Your task to perform on an android device: toggle translation in the chrome app Image 0: 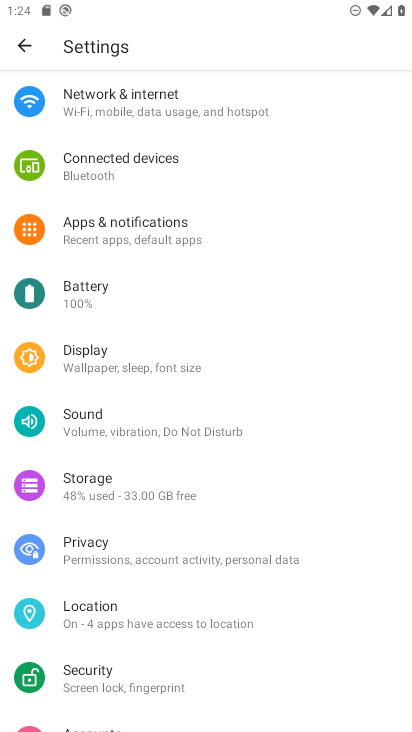
Step 0: press home button
Your task to perform on an android device: toggle translation in the chrome app Image 1: 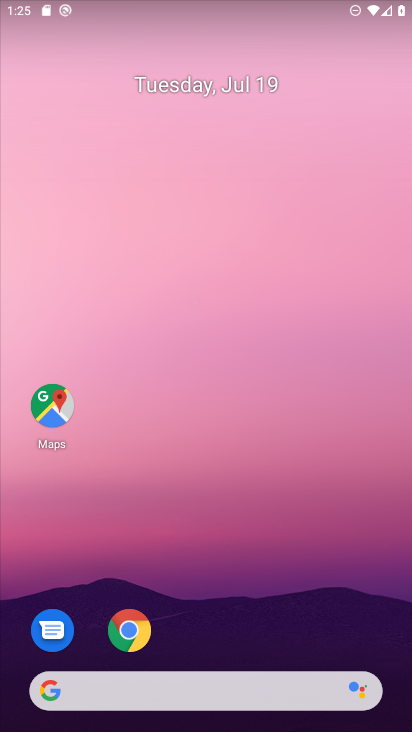
Step 1: click (125, 635)
Your task to perform on an android device: toggle translation in the chrome app Image 2: 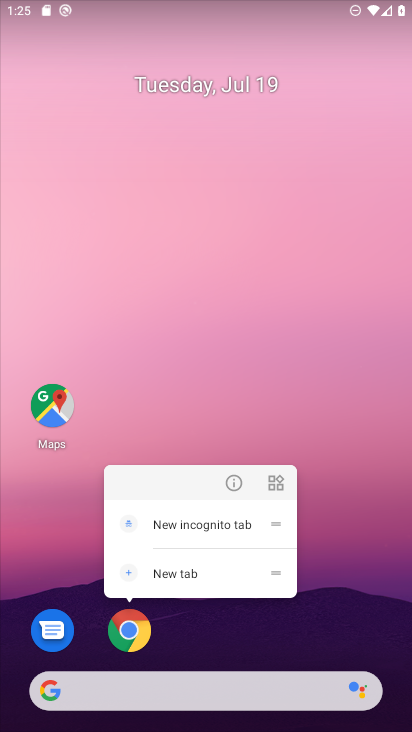
Step 2: click (135, 626)
Your task to perform on an android device: toggle translation in the chrome app Image 3: 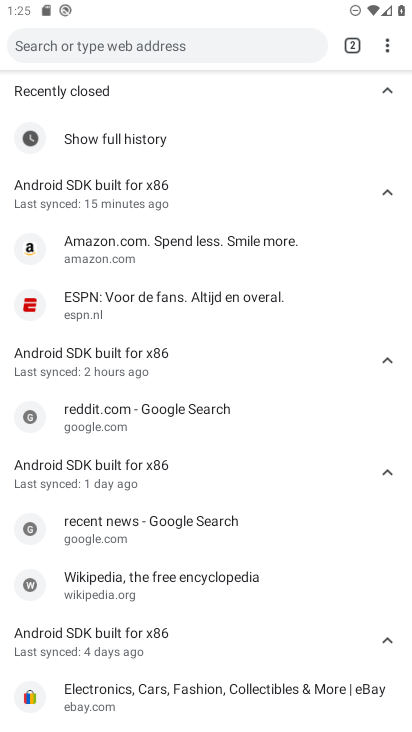
Step 3: drag from (386, 41) to (276, 389)
Your task to perform on an android device: toggle translation in the chrome app Image 4: 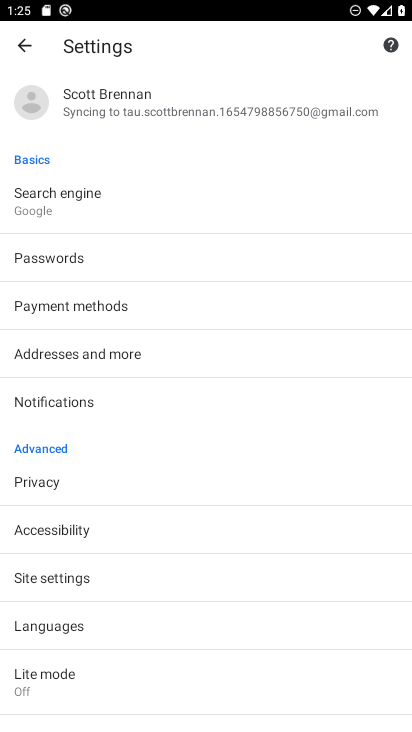
Step 4: drag from (125, 550) to (242, 338)
Your task to perform on an android device: toggle translation in the chrome app Image 5: 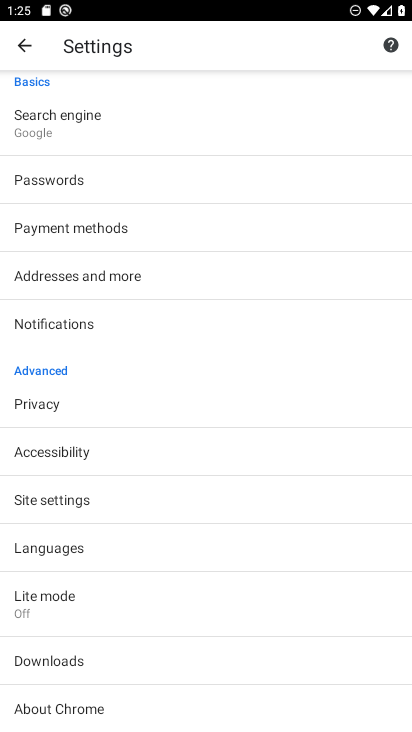
Step 5: click (83, 546)
Your task to perform on an android device: toggle translation in the chrome app Image 6: 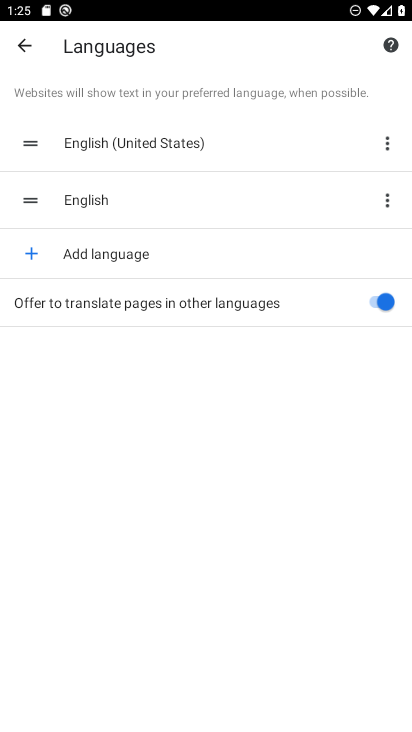
Step 6: click (371, 301)
Your task to perform on an android device: toggle translation in the chrome app Image 7: 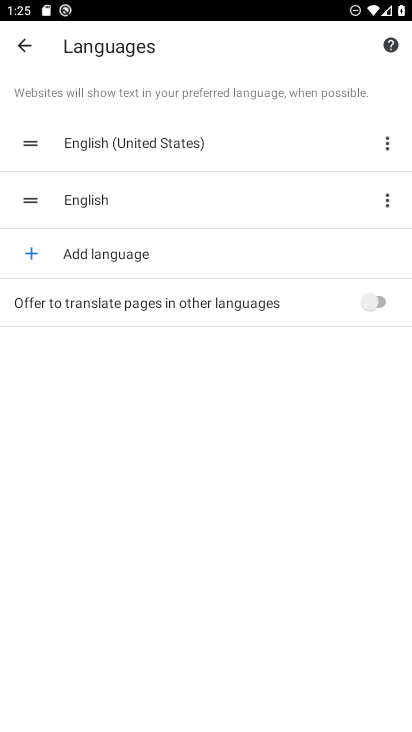
Step 7: task complete